Your task to perform on an android device: Go to privacy settings Image 0: 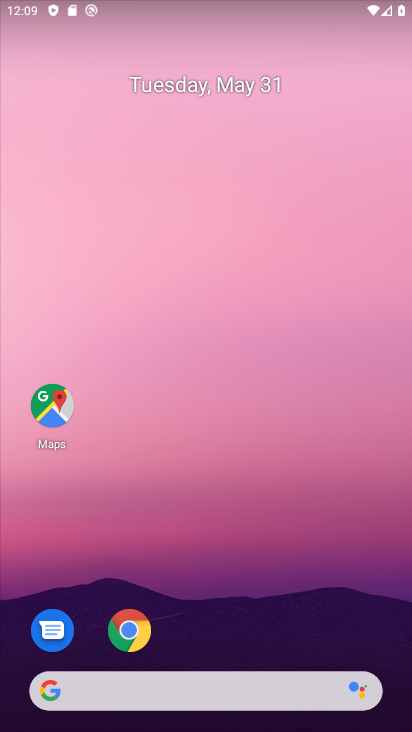
Step 0: drag from (201, 579) to (244, 190)
Your task to perform on an android device: Go to privacy settings Image 1: 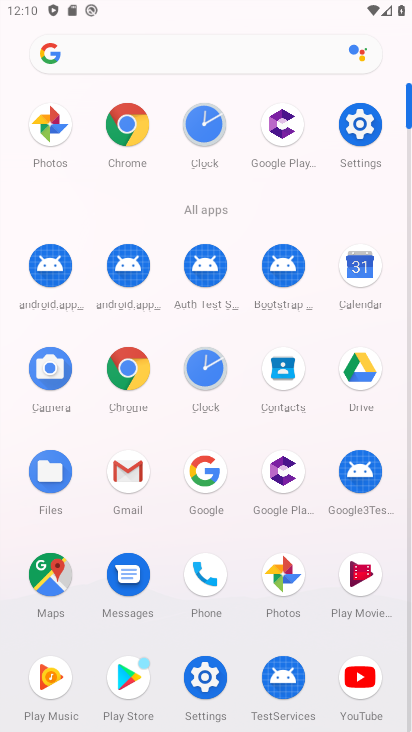
Step 1: click (362, 123)
Your task to perform on an android device: Go to privacy settings Image 2: 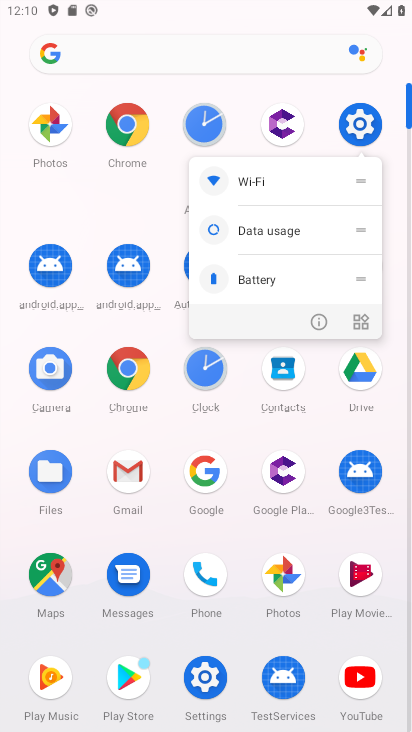
Step 2: click (317, 320)
Your task to perform on an android device: Go to privacy settings Image 3: 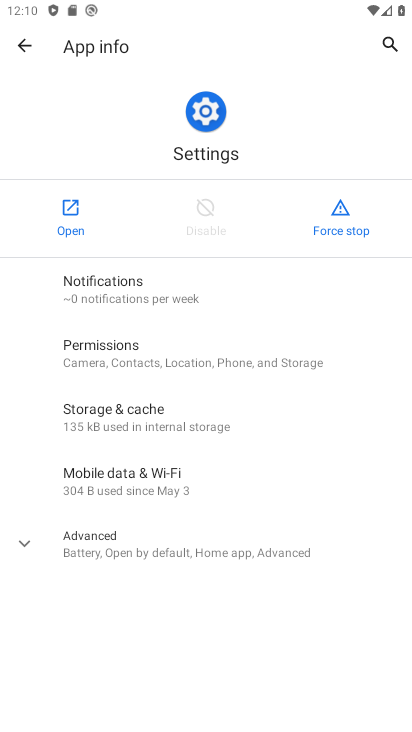
Step 3: click (74, 216)
Your task to perform on an android device: Go to privacy settings Image 4: 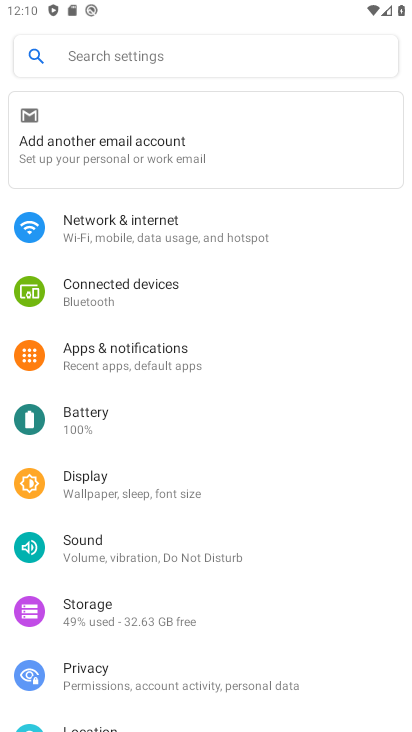
Step 4: click (131, 682)
Your task to perform on an android device: Go to privacy settings Image 5: 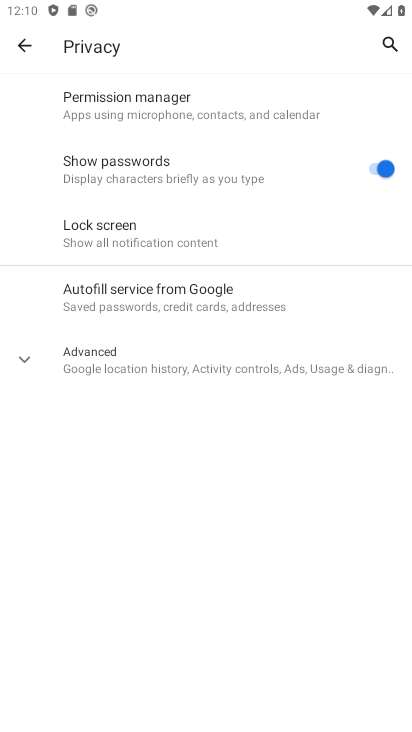
Step 5: task complete